Your task to perform on an android device: Open Chrome and go to the settings page Image 0: 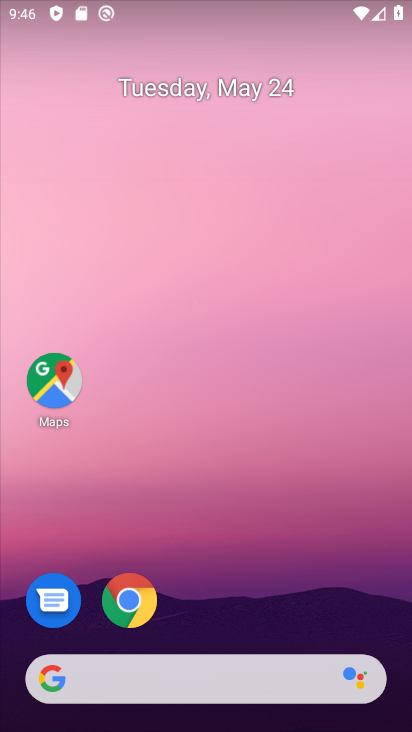
Step 0: click (120, 615)
Your task to perform on an android device: Open Chrome and go to the settings page Image 1: 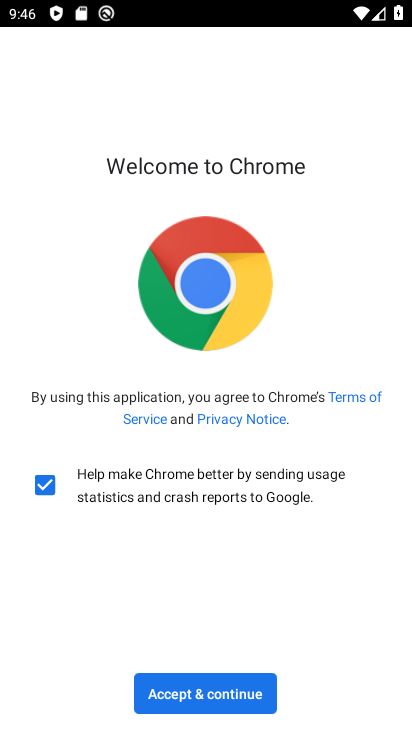
Step 1: click (217, 711)
Your task to perform on an android device: Open Chrome and go to the settings page Image 2: 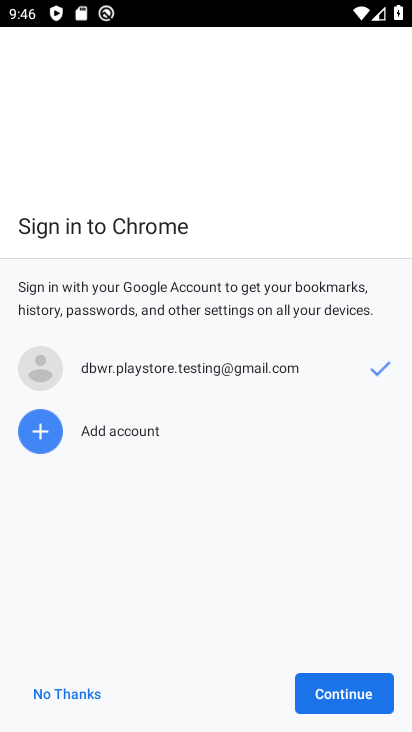
Step 2: click (329, 702)
Your task to perform on an android device: Open Chrome and go to the settings page Image 3: 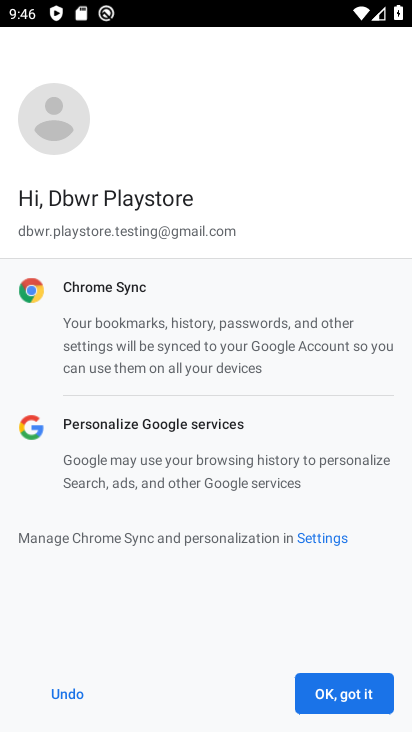
Step 3: click (329, 702)
Your task to perform on an android device: Open Chrome and go to the settings page Image 4: 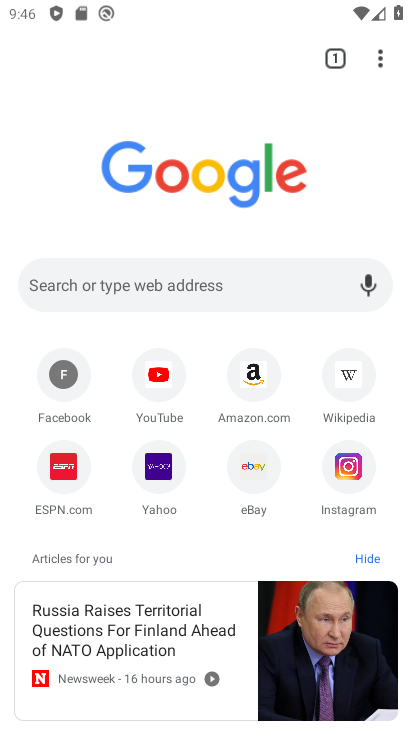
Step 4: click (375, 51)
Your task to perform on an android device: Open Chrome and go to the settings page Image 5: 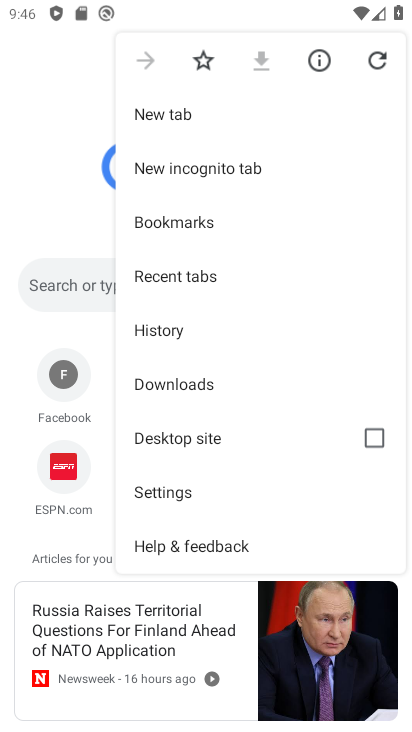
Step 5: click (172, 501)
Your task to perform on an android device: Open Chrome and go to the settings page Image 6: 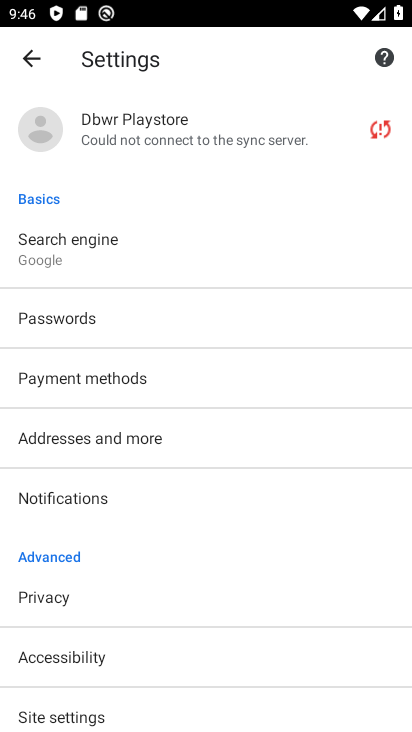
Step 6: task complete